Your task to perform on an android device: turn on improve location accuracy Image 0: 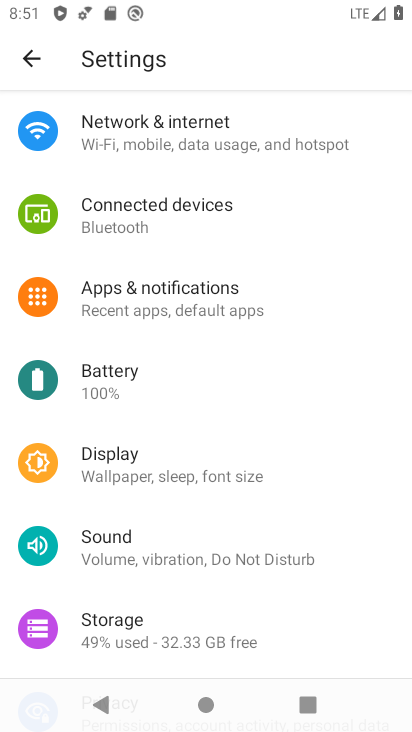
Step 0: drag from (146, 590) to (217, 266)
Your task to perform on an android device: turn on improve location accuracy Image 1: 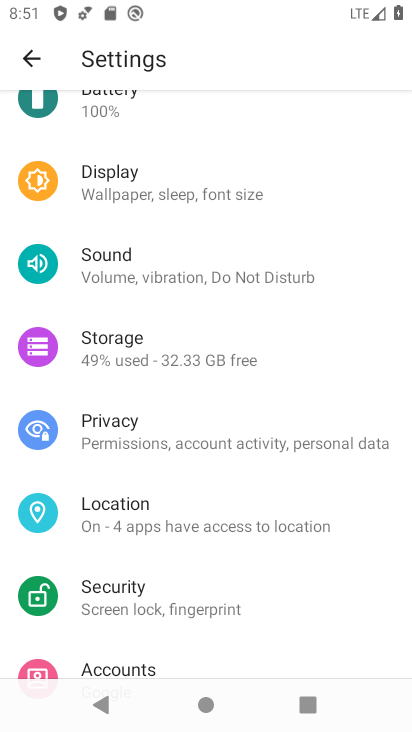
Step 1: click (217, 496)
Your task to perform on an android device: turn on improve location accuracy Image 2: 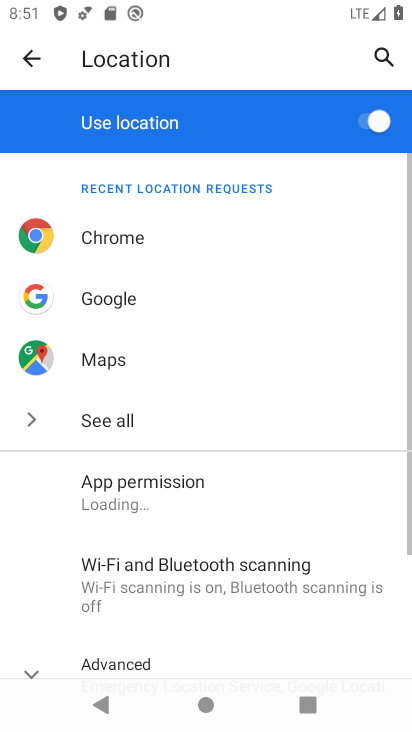
Step 2: drag from (215, 657) to (259, 269)
Your task to perform on an android device: turn on improve location accuracy Image 3: 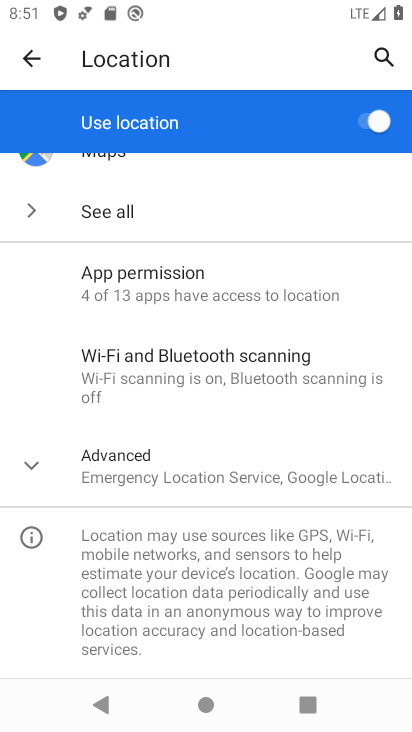
Step 3: click (169, 442)
Your task to perform on an android device: turn on improve location accuracy Image 4: 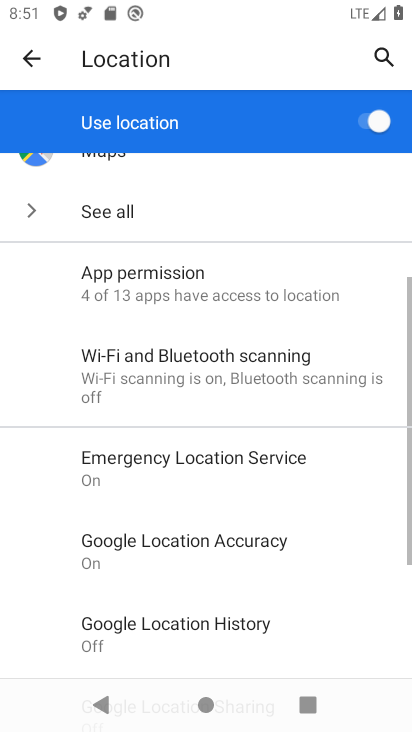
Step 4: drag from (182, 505) to (237, 262)
Your task to perform on an android device: turn on improve location accuracy Image 5: 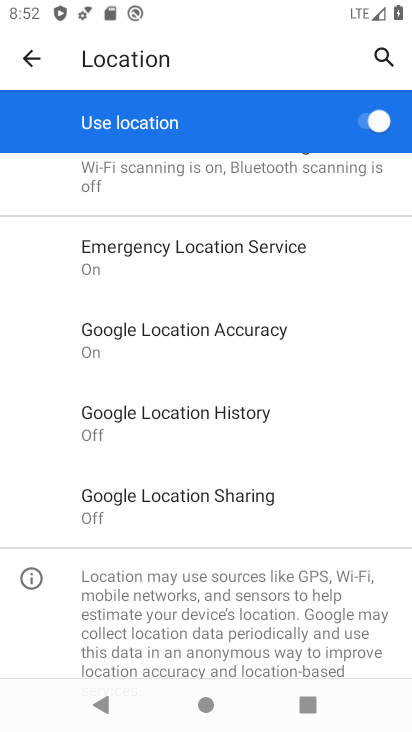
Step 5: click (211, 336)
Your task to perform on an android device: turn on improve location accuracy Image 6: 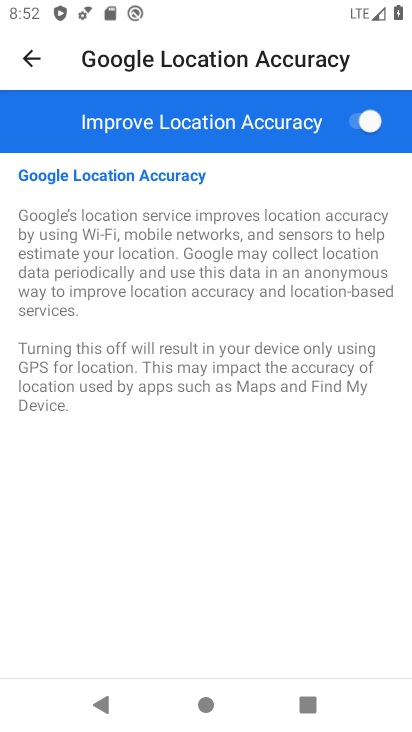
Step 6: task complete